Your task to perform on an android device: Open ESPN.com Image 0: 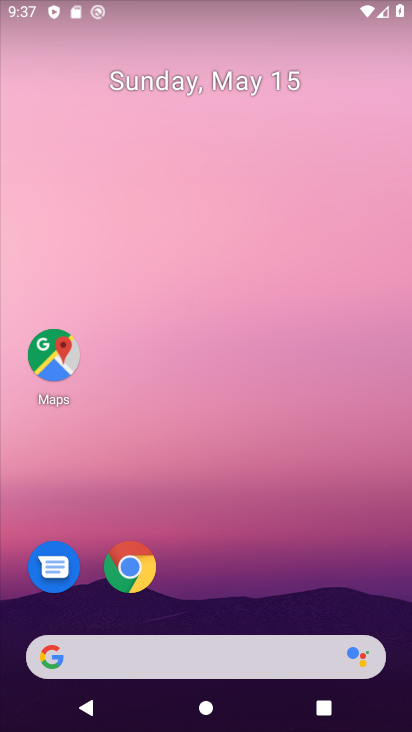
Step 0: drag from (219, 581) to (191, 89)
Your task to perform on an android device: Open ESPN.com Image 1: 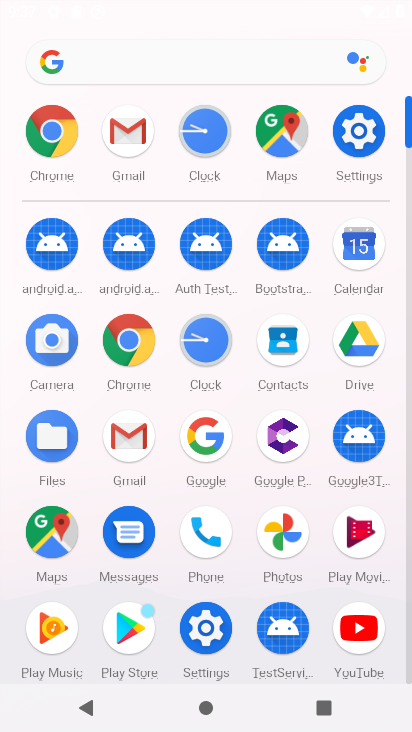
Step 1: click (209, 435)
Your task to perform on an android device: Open ESPN.com Image 2: 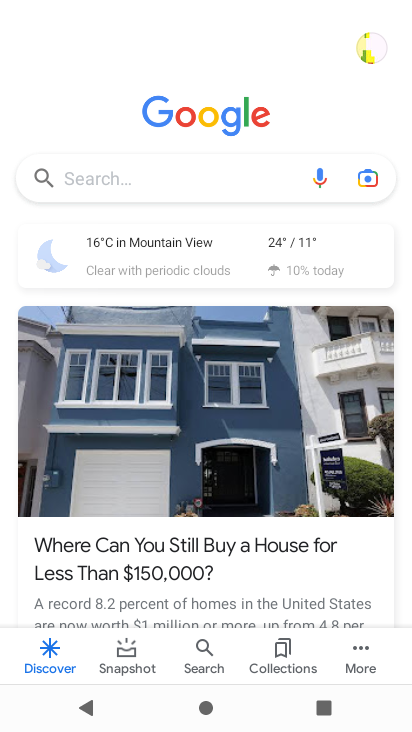
Step 2: click (149, 190)
Your task to perform on an android device: Open ESPN.com Image 3: 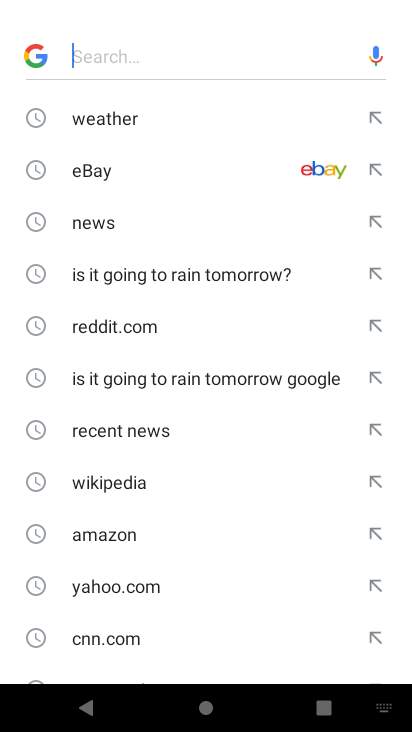
Step 3: drag from (178, 544) to (167, 368)
Your task to perform on an android device: Open ESPN.com Image 4: 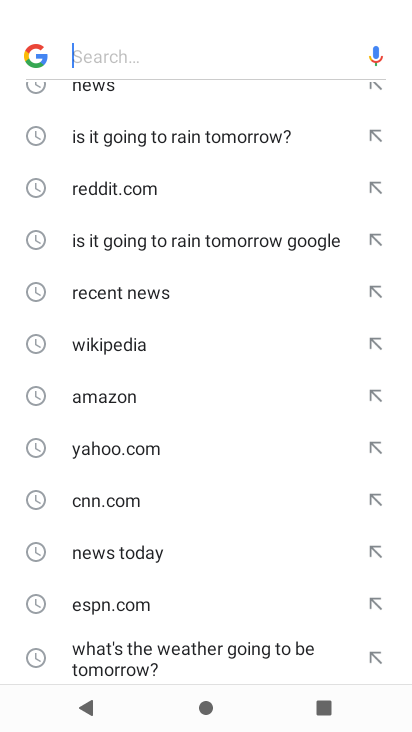
Step 4: click (135, 602)
Your task to perform on an android device: Open ESPN.com Image 5: 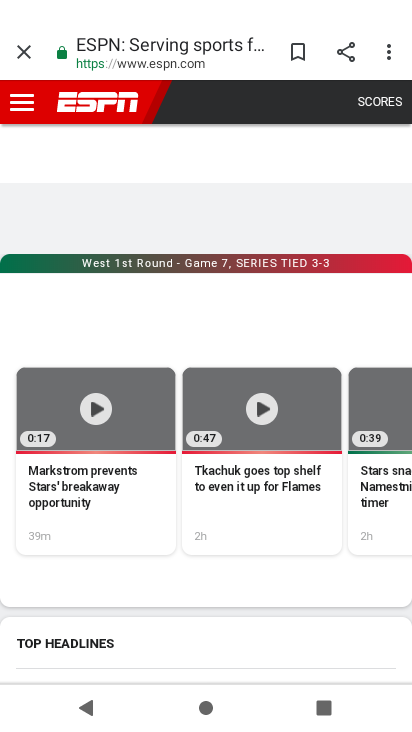
Step 5: task complete